Your task to perform on an android device: delete the emails in spam in the gmail app Image 0: 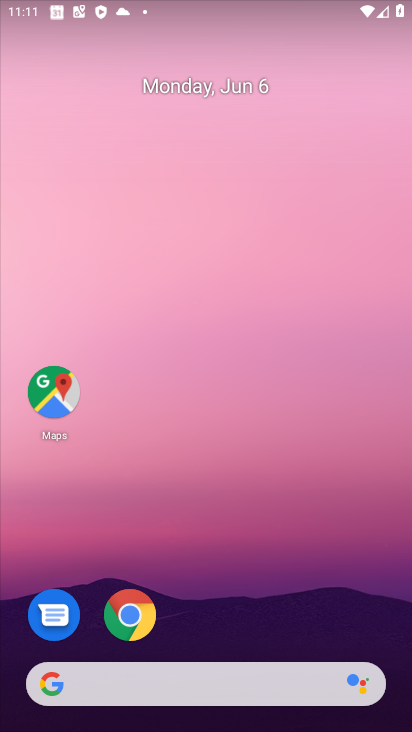
Step 0: drag from (294, 636) to (277, 46)
Your task to perform on an android device: delete the emails in spam in the gmail app Image 1: 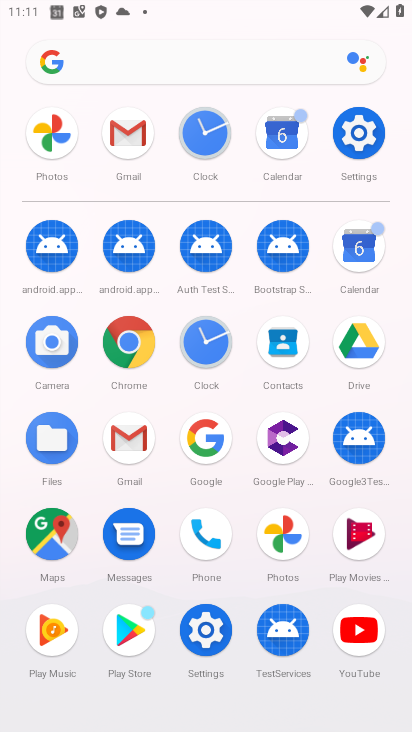
Step 1: click (130, 153)
Your task to perform on an android device: delete the emails in spam in the gmail app Image 2: 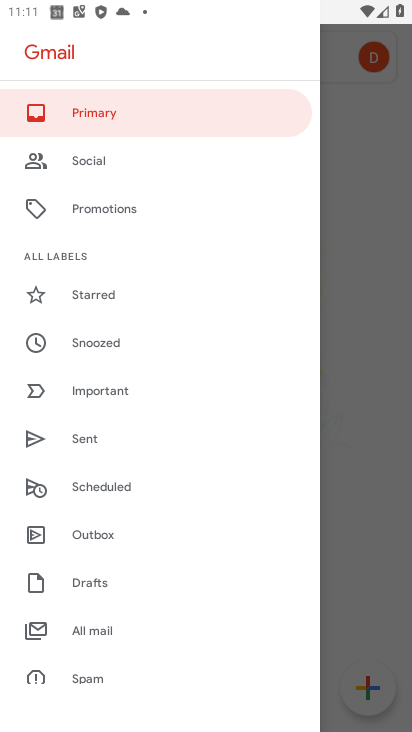
Step 2: task complete